Your task to perform on an android device: Toggle the flashlight Image 0: 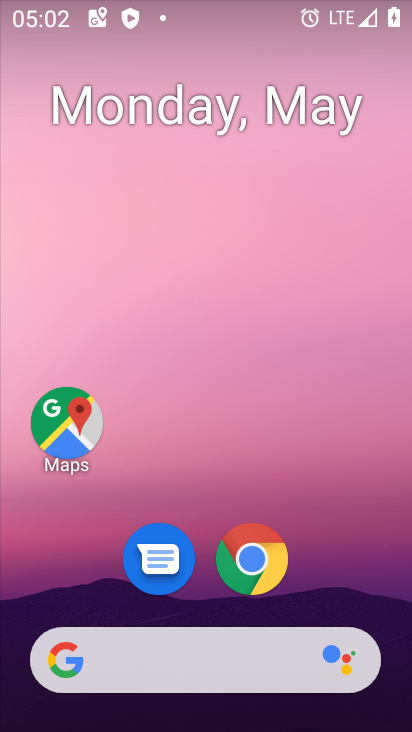
Step 0: drag from (202, 639) to (229, 0)
Your task to perform on an android device: Toggle the flashlight Image 1: 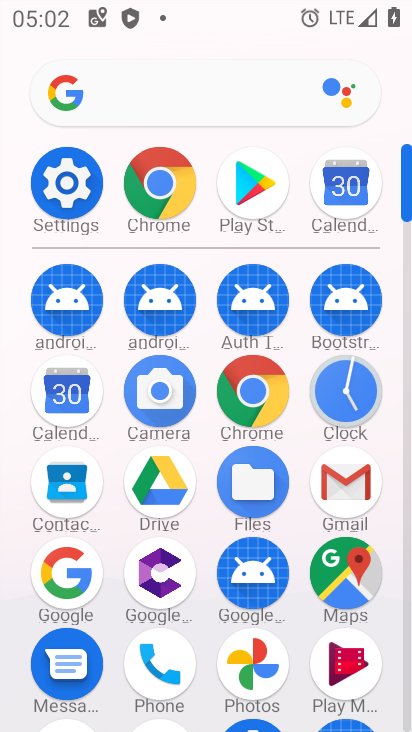
Step 1: click (74, 182)
Your task to perform on an android device: Toggle the flashlight Image 2: 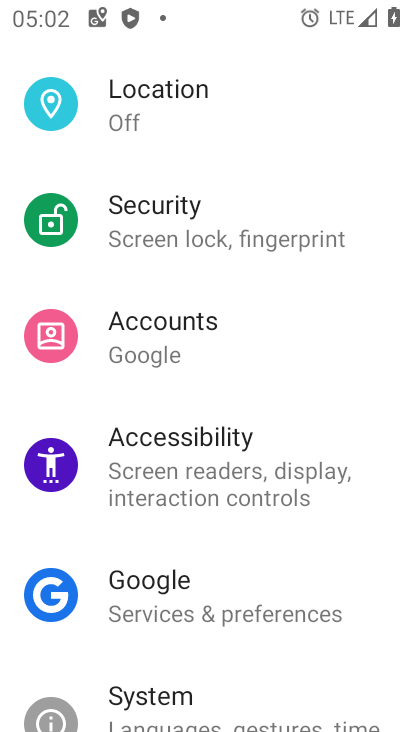
Step 2: task complete